Your task to perform on an android device: delete location history Image 0: 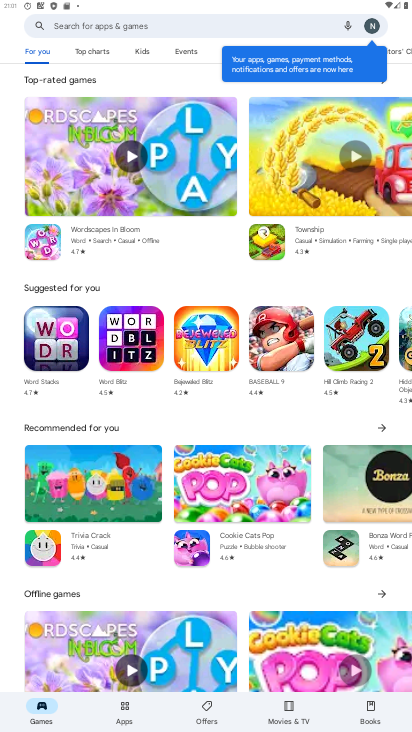
Step 0: press home button
Your task to perform on an android device: delete location history Image 1: 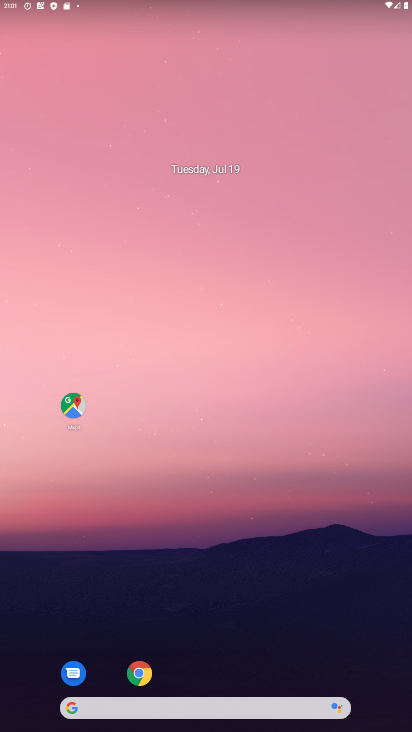
Step 1: drag from (233, 675) to (171, 9)
Your task to perform on an android device: delete location history Image 2: 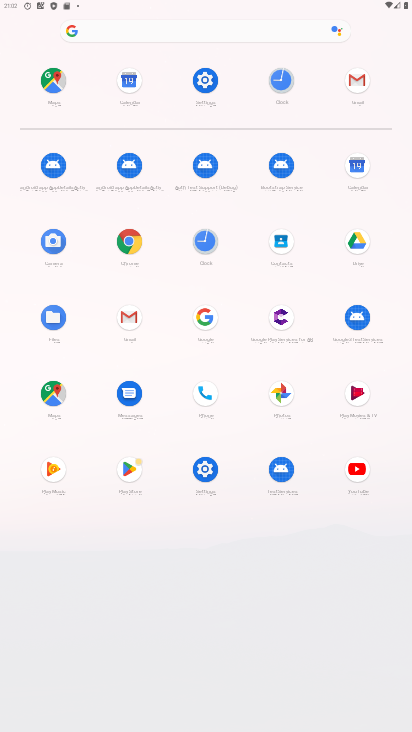
Step 2: click (59, 401)
Your task to perform on an android device: delete location history Image 3: 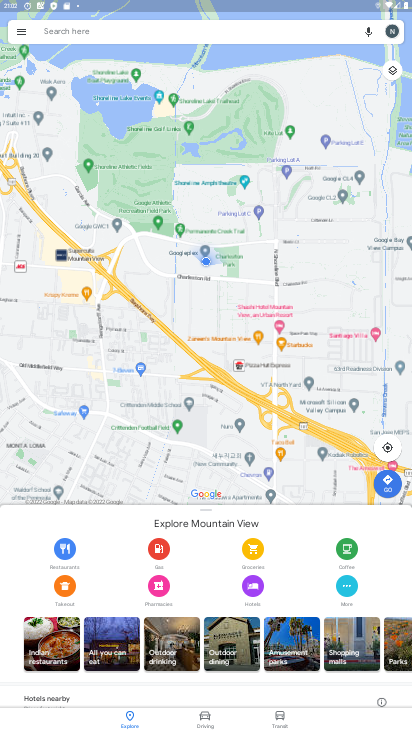
Step 3: click (21, 35)
Your task to perform on an android device: delete location history Image 4: 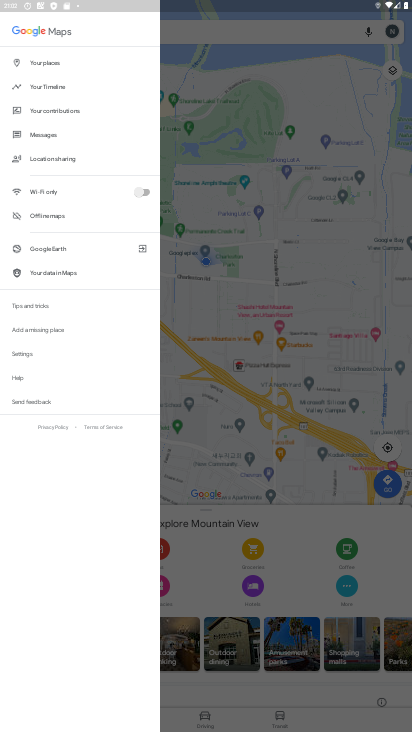
Step 4: click (53, 85)
Your task to perform on an android device: delete location history Image 5: 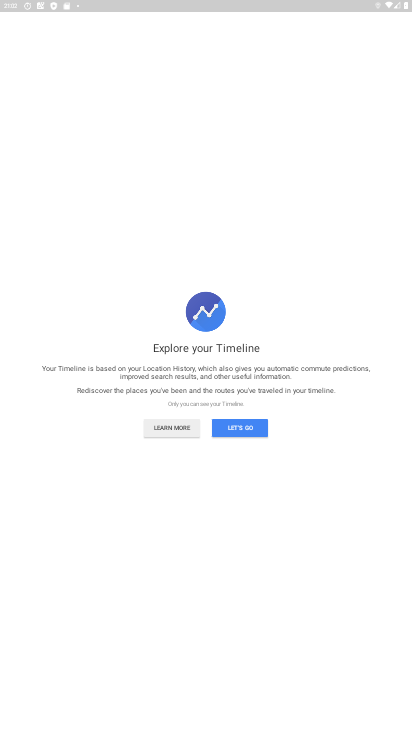
Step 5: click (244, 431)
Your task to perform on an android device: delete location history Image 6: 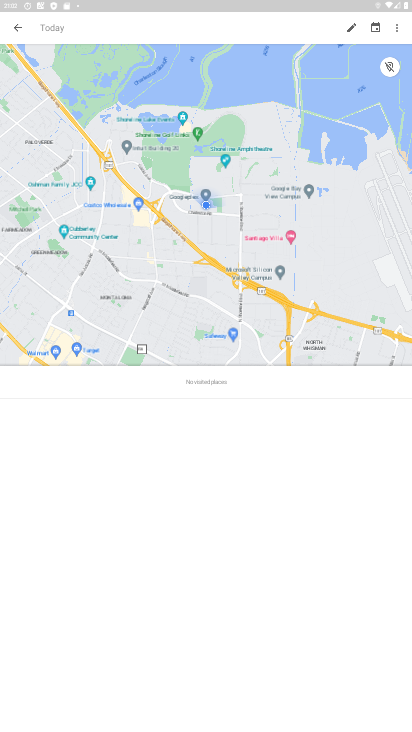
Step 6: click (396, 32)
Your task to perform on an android device: delete location history Image 7: 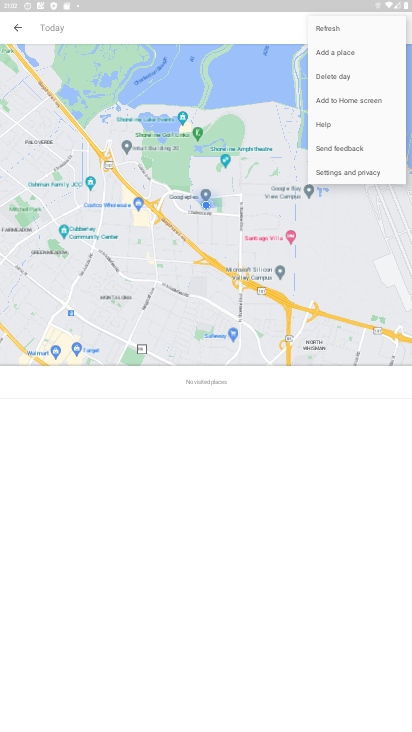
Step 7: click (346, 176)
Your task to perform on an android device: delete location history Image 8: 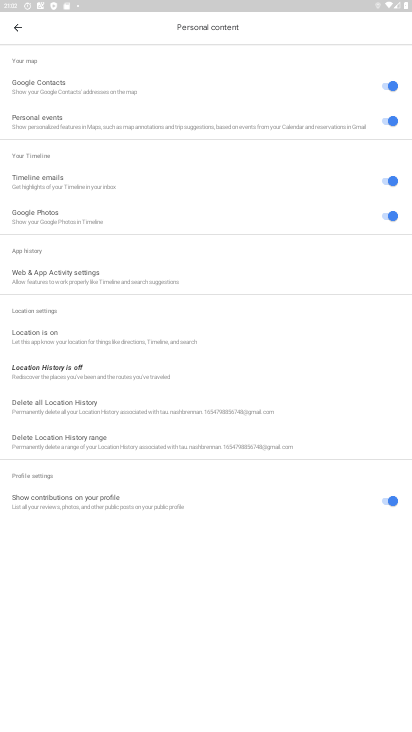
Step 8: click (101, 411)
Your task to perform on an android device: delete location history Image 9: 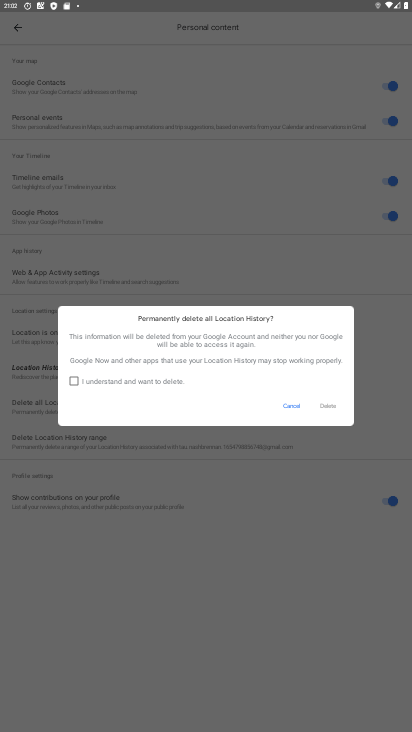
Step 9: click (107, 382)
Your task to perform on an android device: delete location history Image 10: 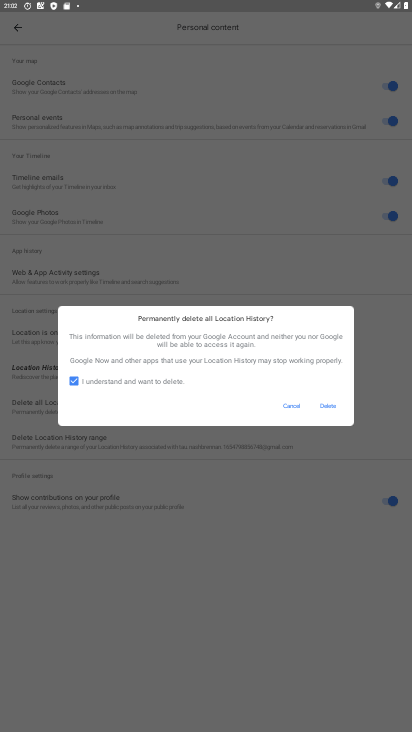
Step 10: click (329, 402)
Your task to perform on an android device: delete location history Image 11: 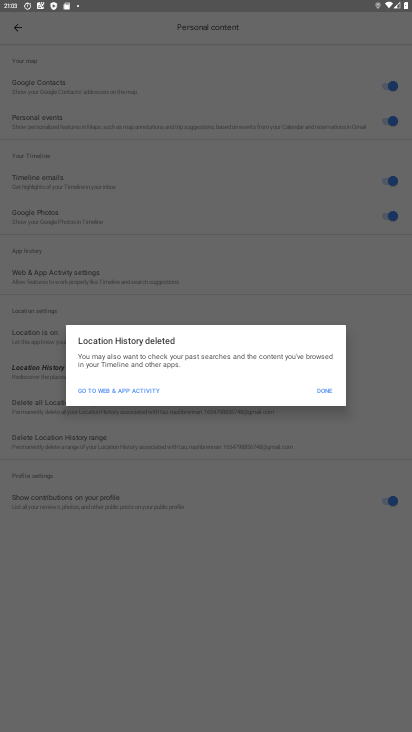
Step 11: click (329, 378)
Your task to perform on an android device: delete location history Image 12: 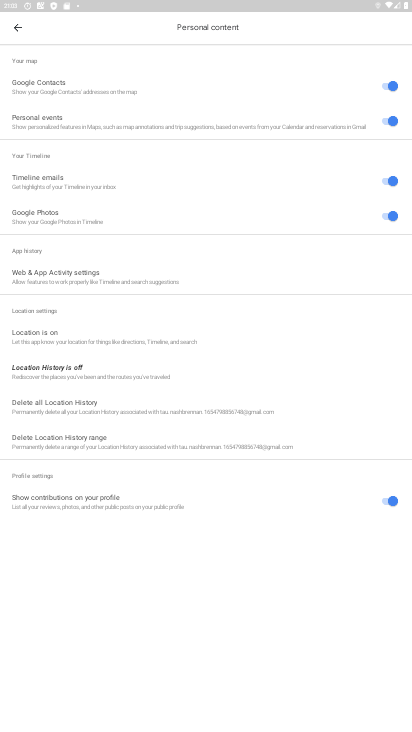
Step 12: task complete